Your task to perform on an android device: Open Chrome and go to settings Image 0: 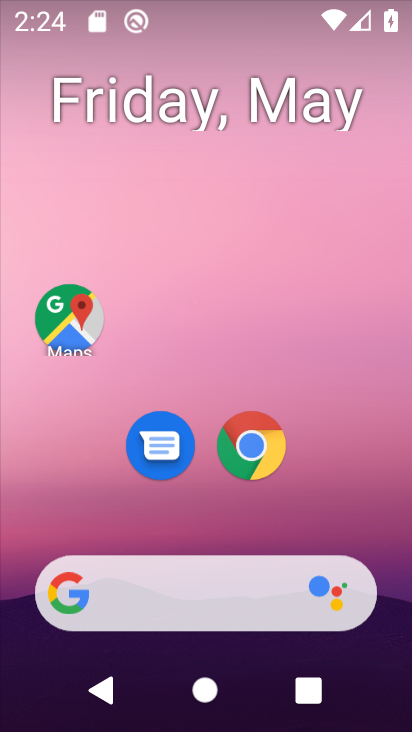
Step 0: click (247, 455)
Your task to perform on an android device: Open Chrome and go to settings Image 1: 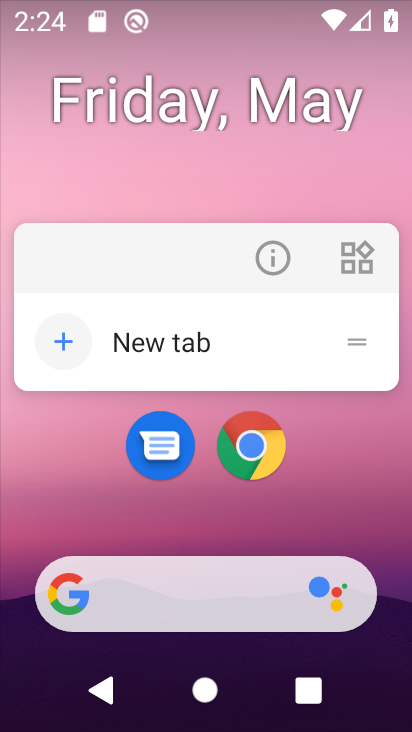
Step 1: click (276, 260)
Your task to perform on an android device: Open Chrome and go to settings Image 2: 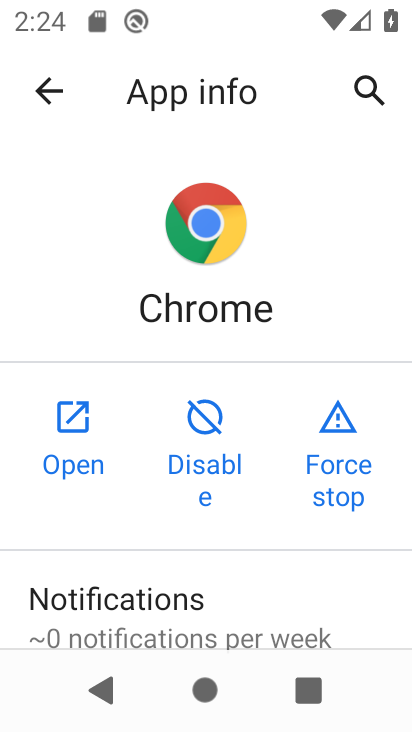
Step 2: click (55, 452)
Your task to perform on an android device: Open Chrome and go to settings Image 3: 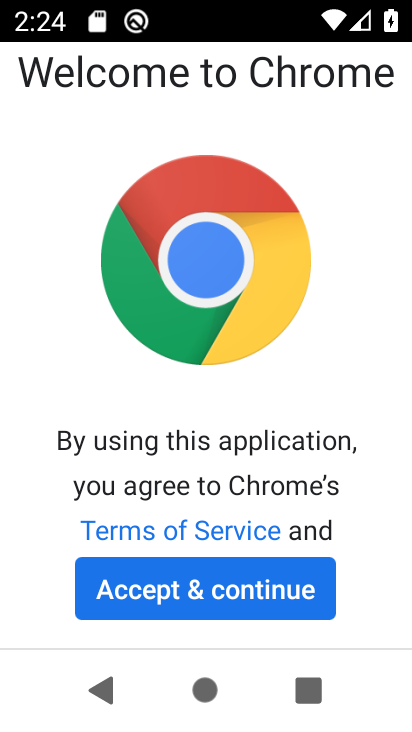
Step 3: click (152, 594)
Your task to perform on an android device: Open Chrome and go to settings Image 4: 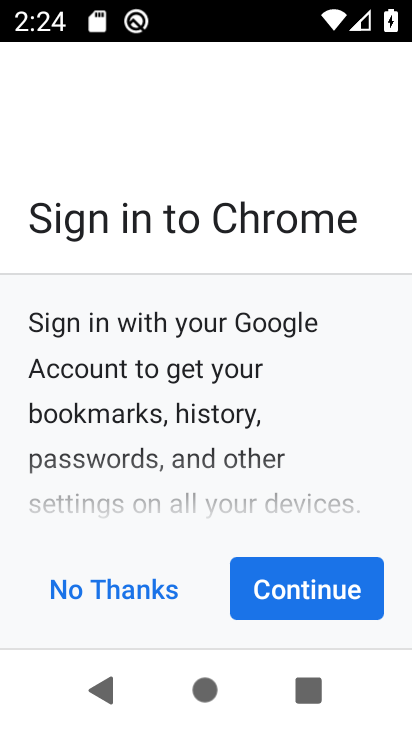
Step 4: click (315, 589)
Your task to perform on an android device: Open Chrome and go to settings Image 5: 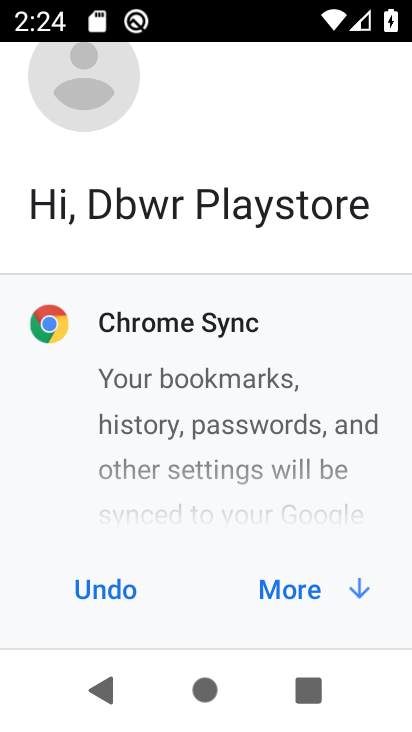
Step 5: click (289, 587)
Your task to perform on an android device: Open Chrome and go to settings Image 6: 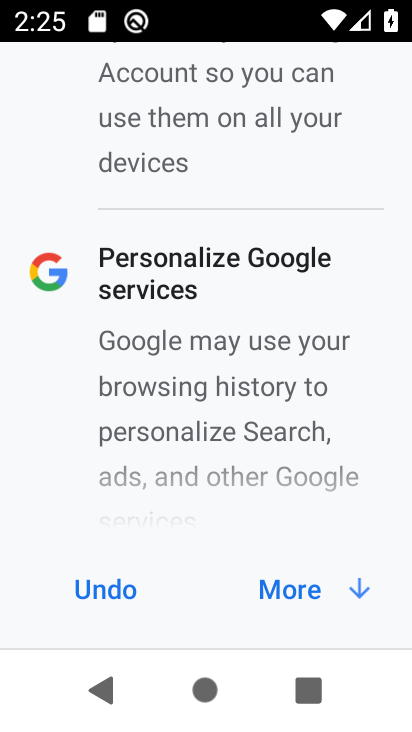
Step 6: click (282, 601)
Your task to perform on an android device: Open Chrome and go to settings Image 7: 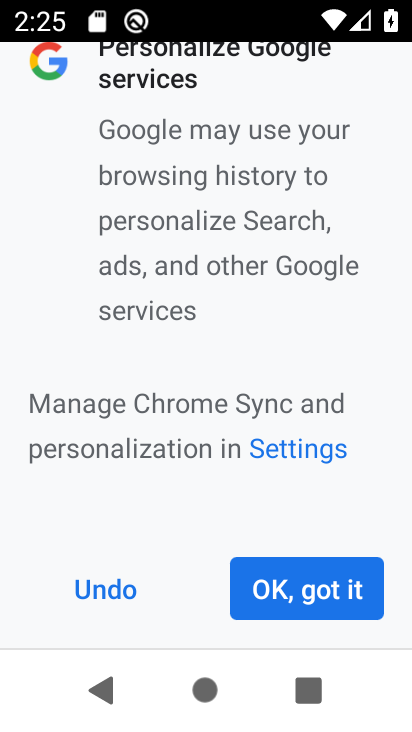
Step 7: click (289, 616)
Your task to perform on an android device: Open Chrome and go to settings Image 8: 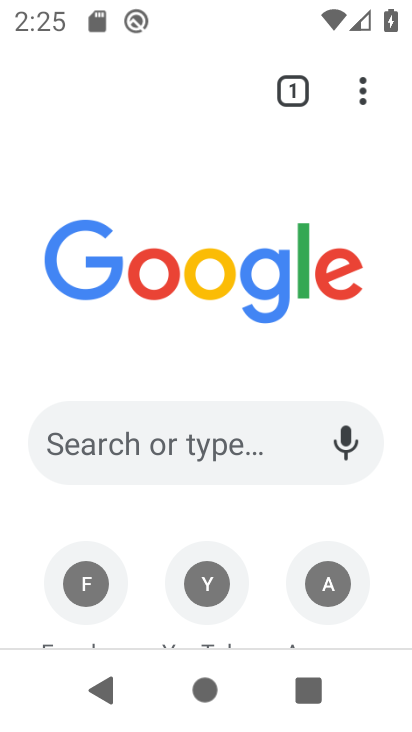
Step 8: click (363, 92)
Your task to perform on an android device: Open Chrome and go to settings Image 9: 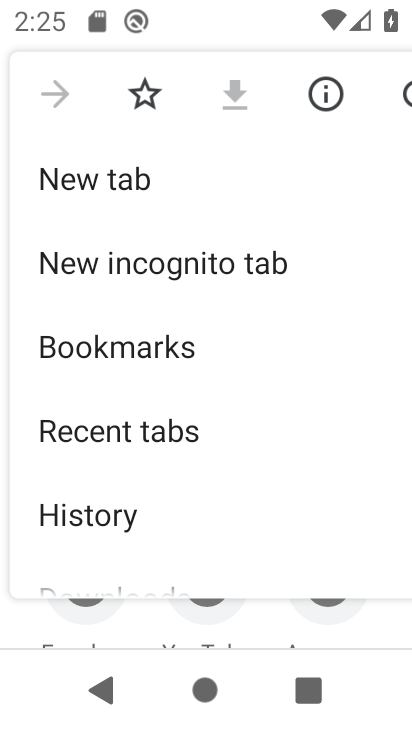
Step 9: drag from (198, 499) to (227, 211)
Your task to perform on an android device: Open Chrome and go to settings Image 10: 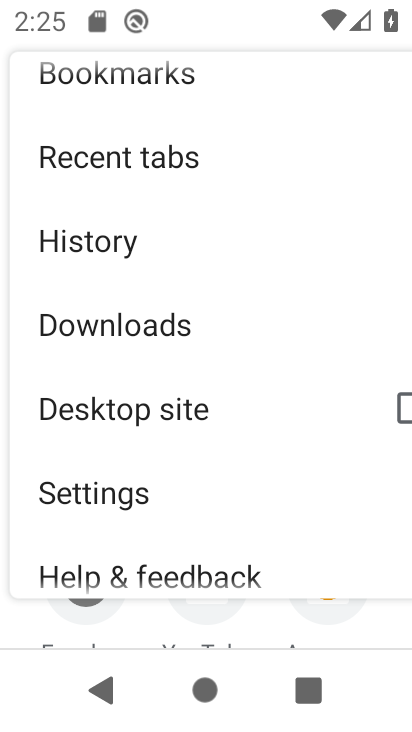
Step 10: drag from (171, 513) to (235, 329)
Your task to perform on an android device: Open Chrome and go to settings Image 11: 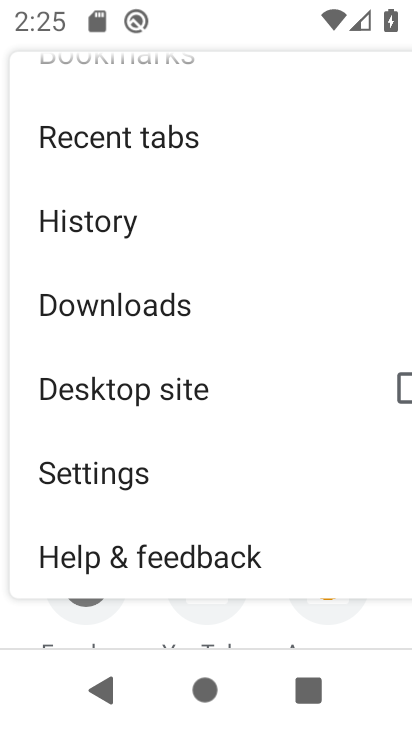
Step 11: drag from (178, 488) to (241, 228)
Your task to perform on an android device: Open Chrome and go to settings Image 12: 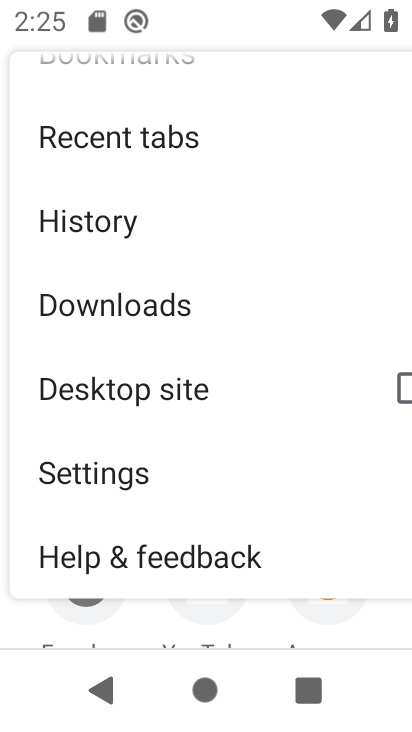
Step 12: drag from (211, 484) to (228, 260)
Your task to perform on an android device: Open Chrome and go to settings Image 13: 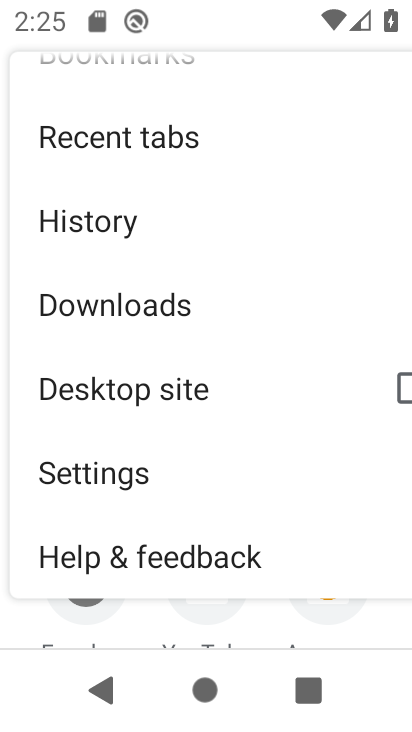
Step 13: click (126, 484)
Your task to perform on an android device: Open Chrome and go to settings Image 14: 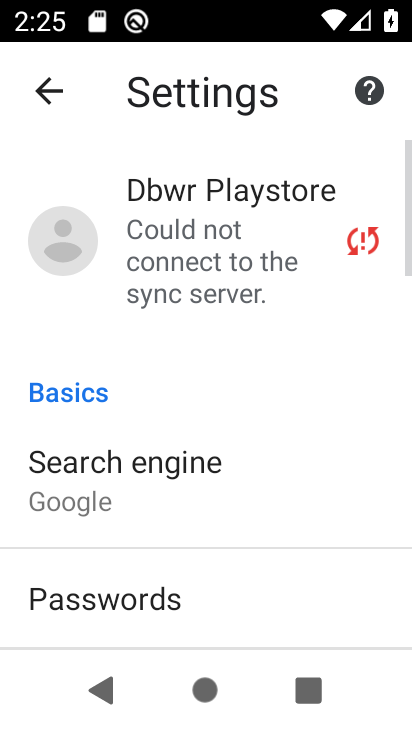
Step 14: task complete